Your task to perform on an android device: Open accessibility settings Image 0: 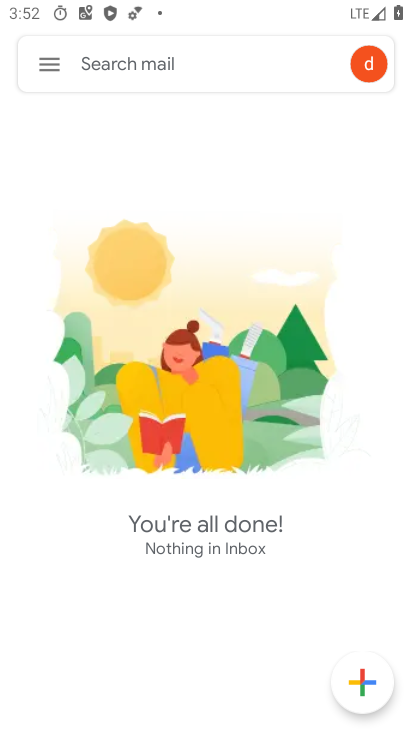
Step 0: press home button
Your task to perform on an android device: Open accessibility settings Image 1: 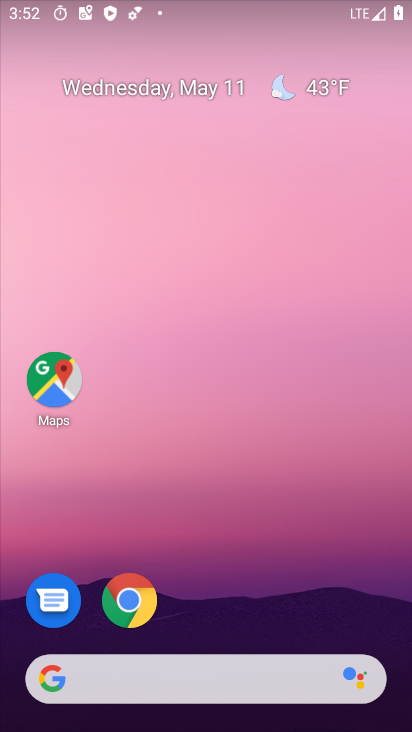
Step 1: drag from (281, 626) to (255, 4)
Your task to perform on an android device: Open accessibility settings Image 2: 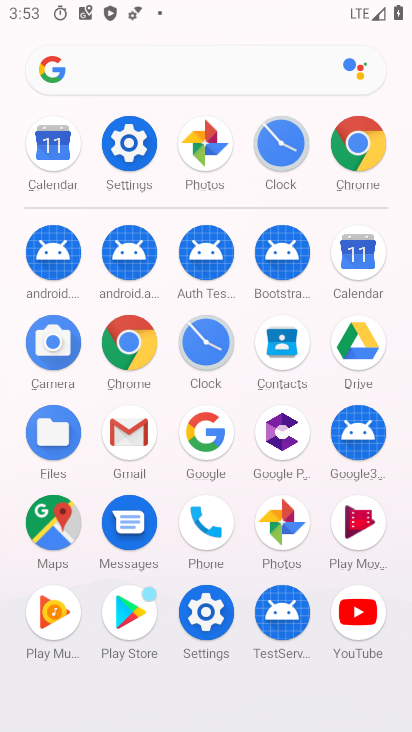
Step 2: click (127, 148)
Your task to perform on an android device: Open accessibility settings Image 3: 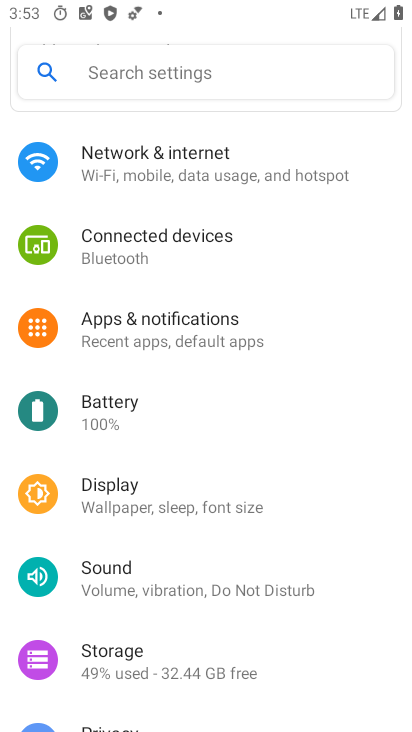
Step 3: drag from (219, 530) to (216, 273)
Your task to perform on an android device: Open accessibility settings Image 4: 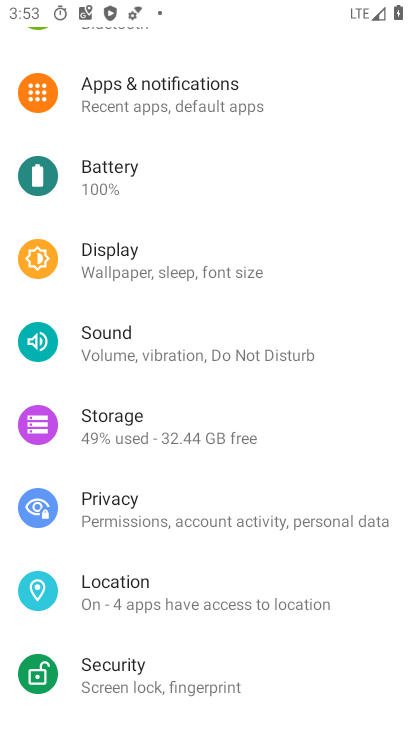
Step 4: drag from (212, 545) to (214, 193)
Your task to perform on an android device: Open accessibility settings Image 5: 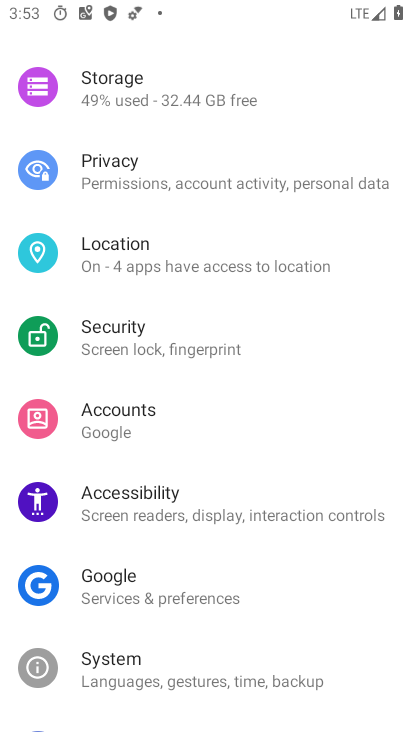
Step 5: drag from (204, 584) to (202, 258)
Your task to perform on an android device: Open accessibility settings Image 6: 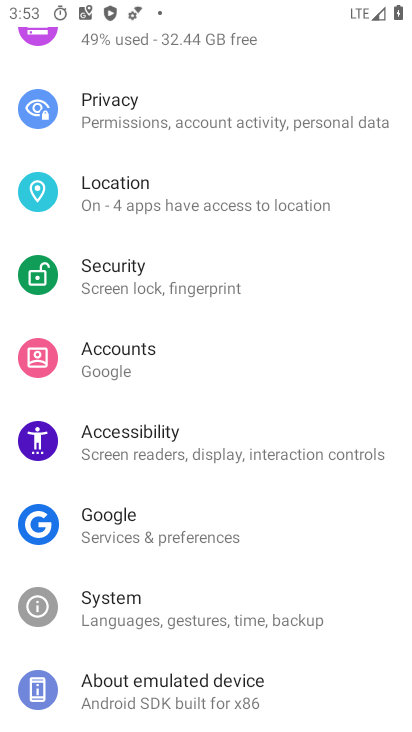
Step 6: click (131, 437)
Your task to perform on an android device: Open accessibility settings Image 7: 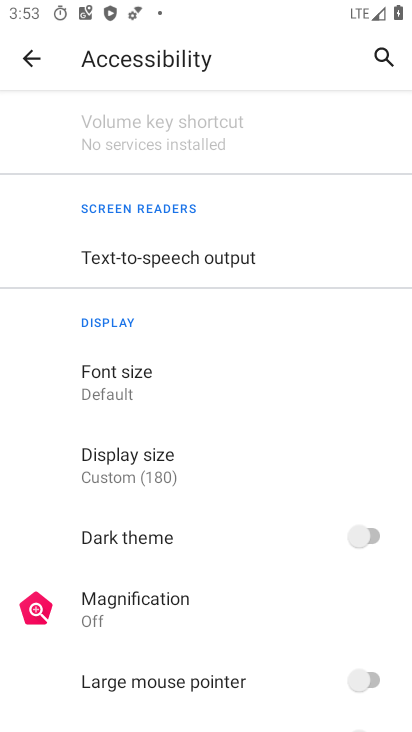
Step 7: task complete